Your task to perform on an android device: open app "ZOOM Cloud Meetings" (install if not already installed) Image 0: 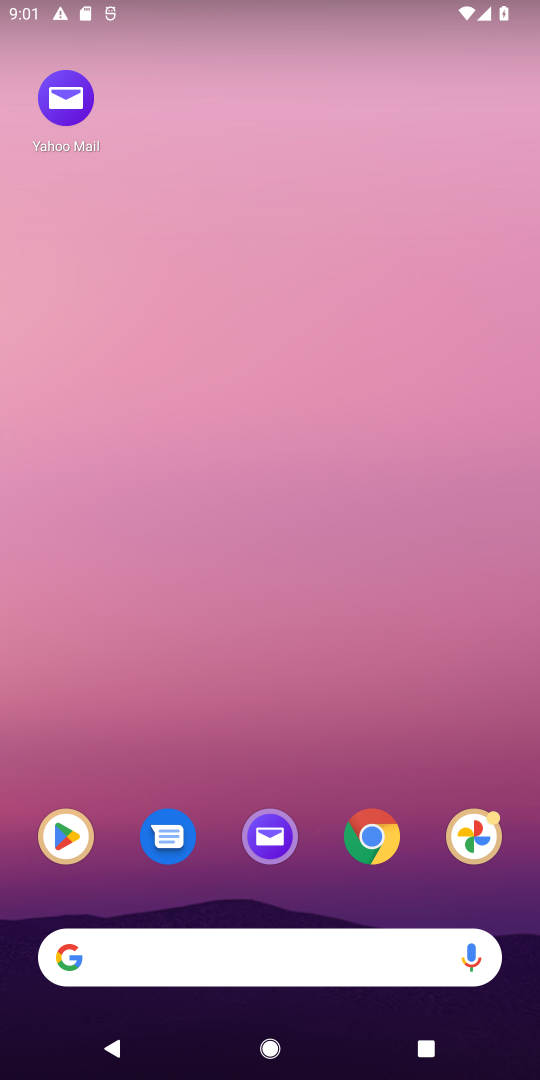
Step 0: drag from (466, 889) to (257, 0)
Your task to perform on an android device: open app "ZOOM Cloud Meetings" (install if not already installed) Image 1: 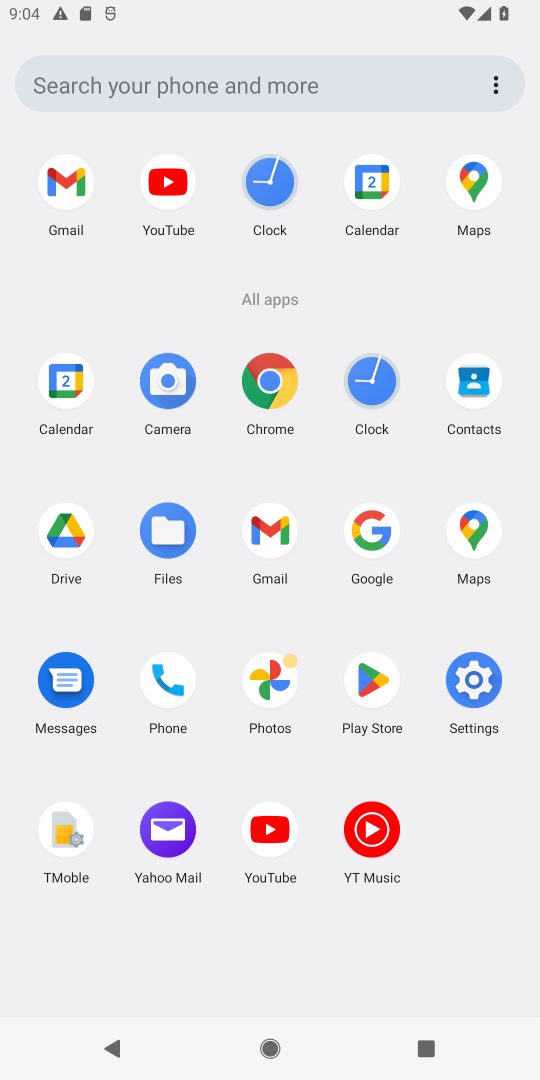
Step 1: click (389, 688)
Your task to perform on an android device: open app "ZOOM Cloud Meetings" (install if not already installed) Image 2: 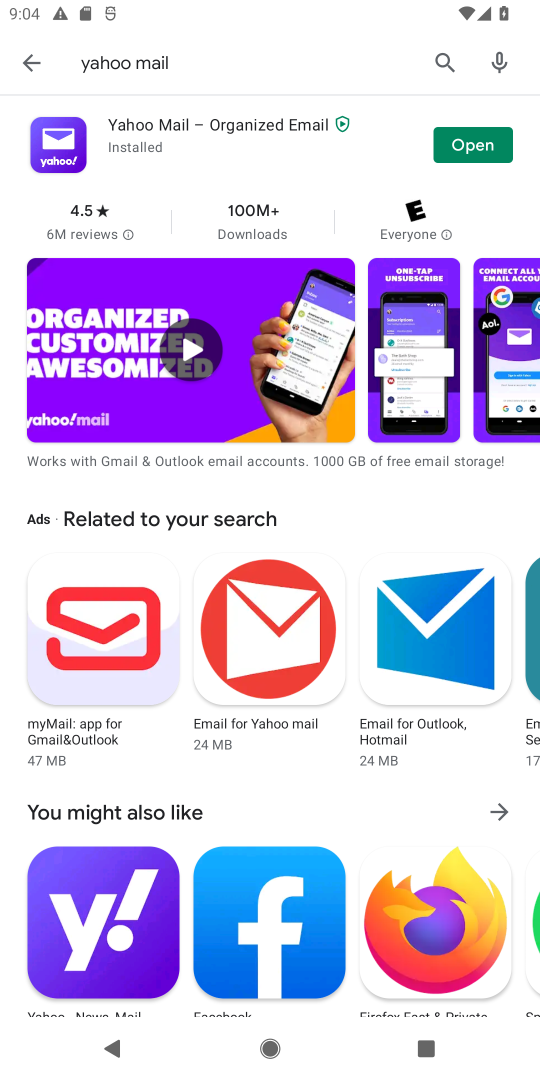
Step 2: press back button
Your task to perform on an android device: open app "ZOOM Cloud Meetings" (install if not already installed) Image 3: 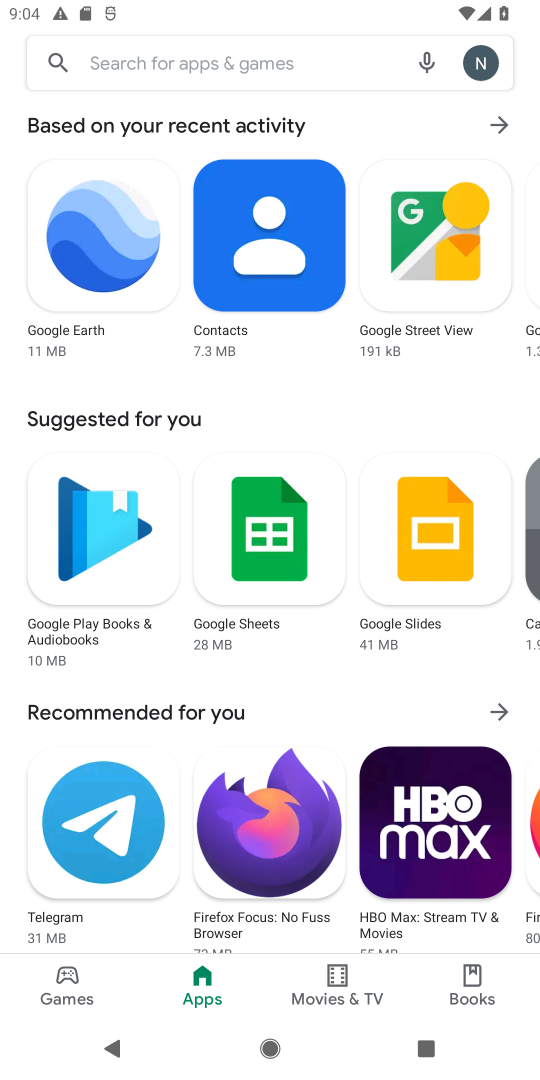
Step 3: click (153, 61)
Your task to perform on an android device: open app "ZOOM Cloud Meetings" (install if not already installed) Image 4: 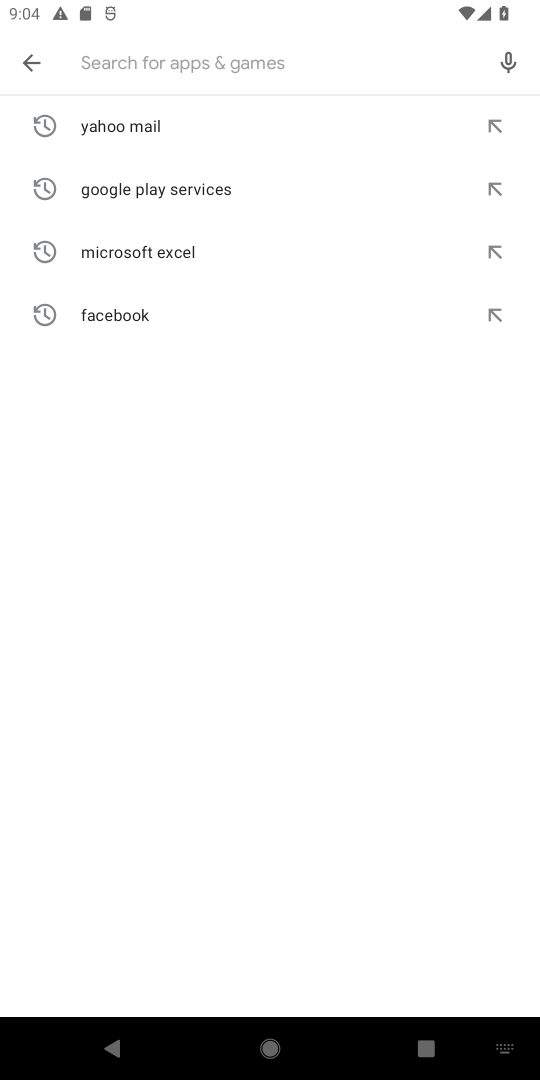
Step 4: type "ZOOM Cloud Meetings"
Your task to perform on an android device: open app "ZOOM Cloud Meetings" (install if not already installed) Image 5: 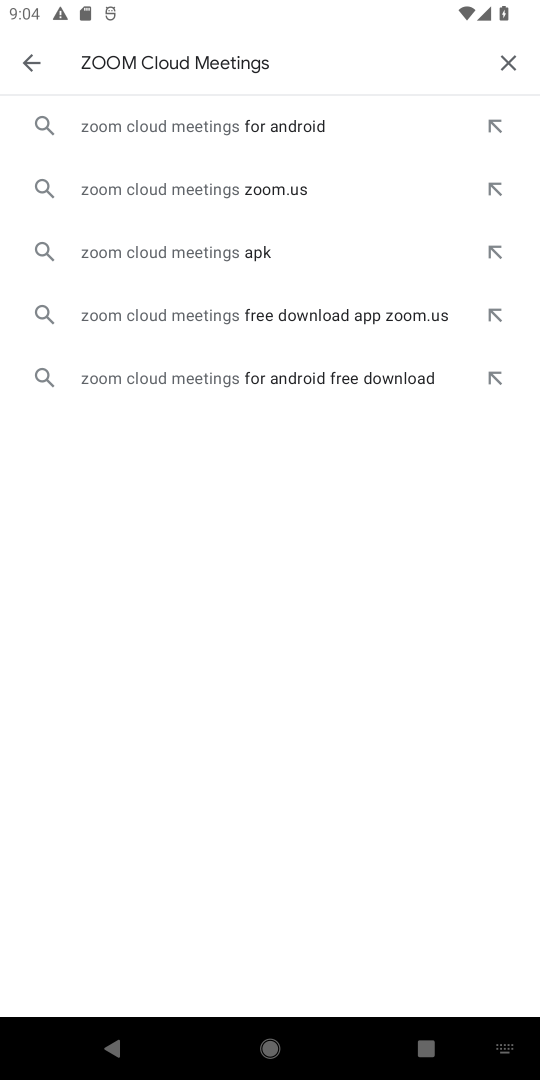
Step 5: task complete